Your task to perform on an android device: Go to display settings Image 0: 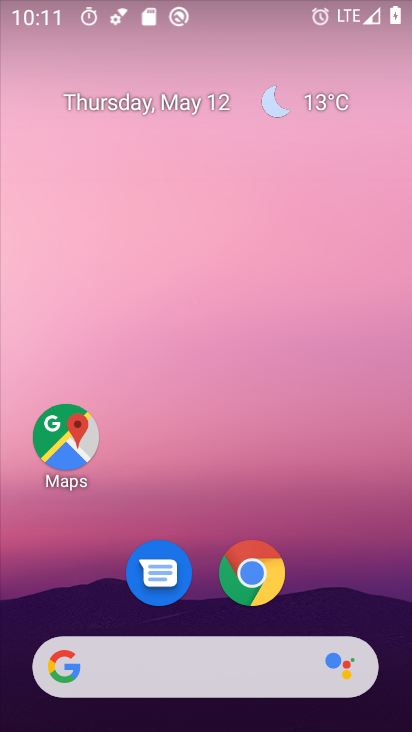
Step 0: drag from (396, 656) to (334, 269)
Your task to perform on an android device: Go to display settings Image 1: 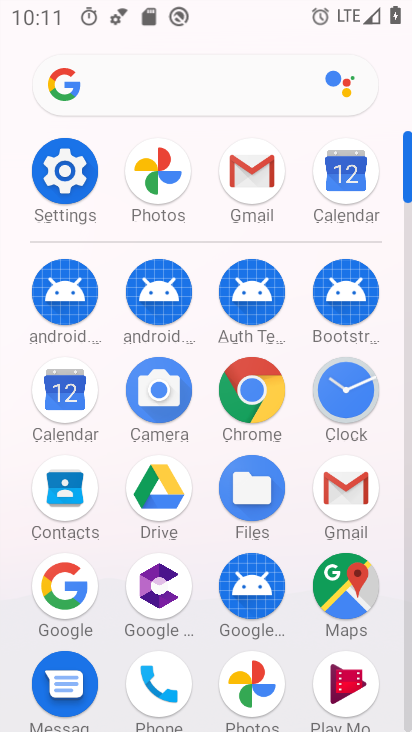
Step 1: click (42, 166)
Your task to perform on an android device: Go to display settings Image 2: 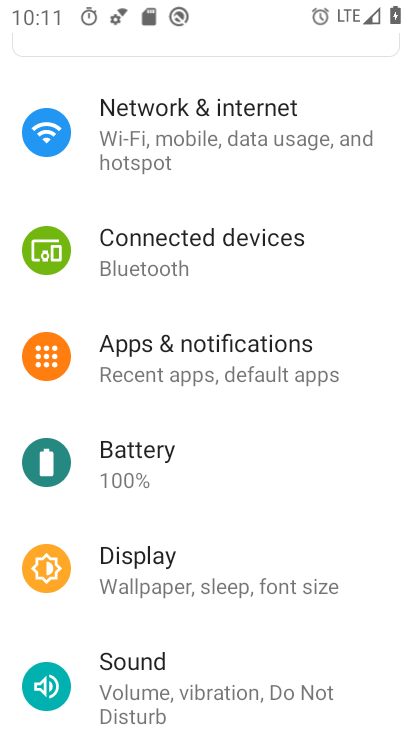
Step 2: click (126, 553)
Your task to perform on an android device: Go to display settings Image 3: 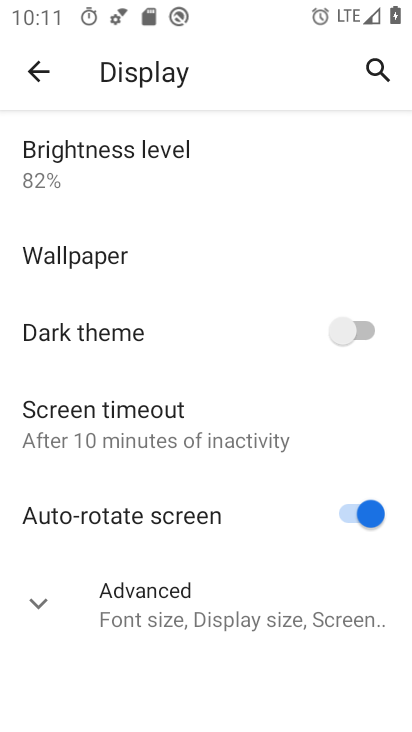
Step 3: task complete